Your task to perform on an android device: Open calendar and show me the first week of next month Image 0: 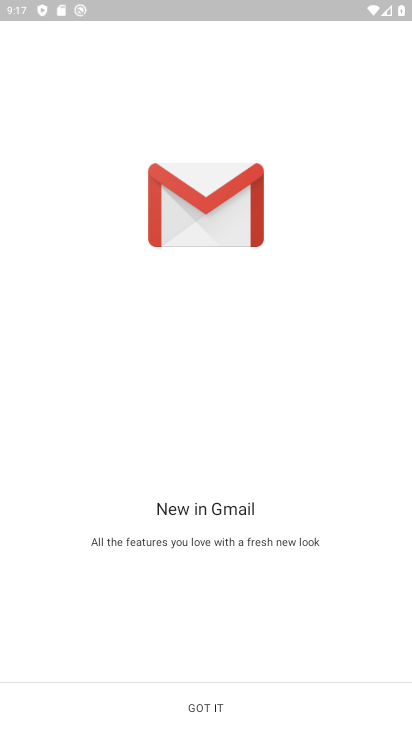
Step 0: press home button
Your task to perform on an android device: Open calendar and show me the first week of next month Image 1: 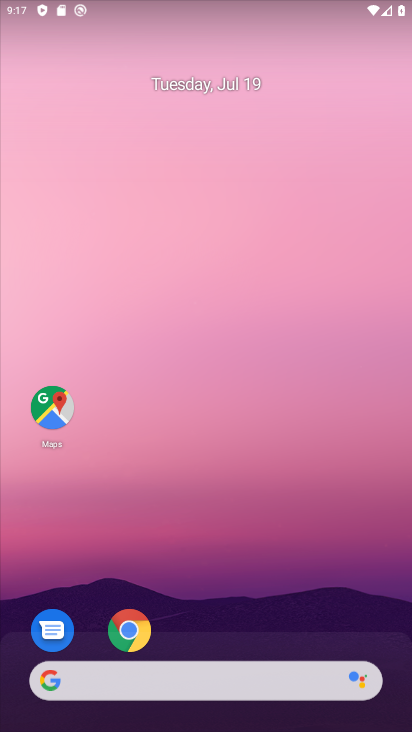
Step 1: drag from (207, 683) to (205, 166)
Your task to perform on an android device: Open calendar and show me the first week of next month Image 2: 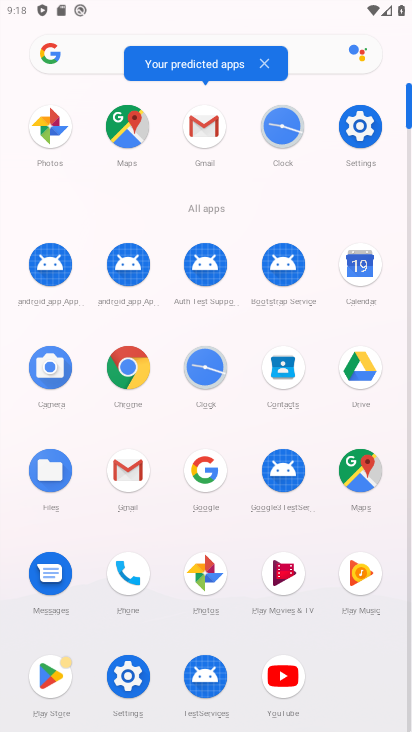
Step 2: click (359, 266)
Your task to perform on an android device: Open calendar and show me the first week of next month Image 3: 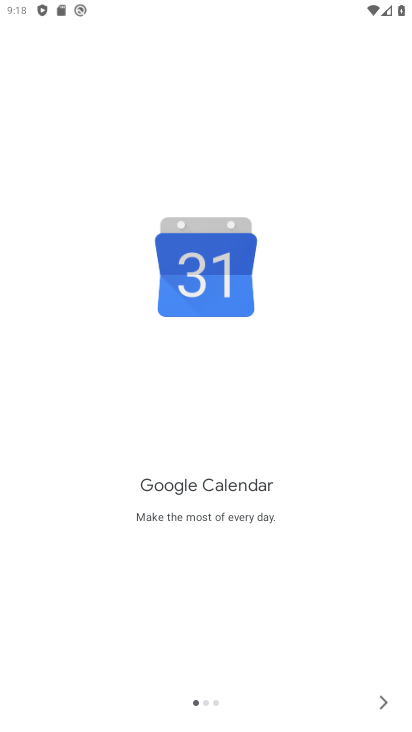
Step 3: click (390, 703)
Your task to perform on an android device: Open calendar and show me the first week of next month Image 4: 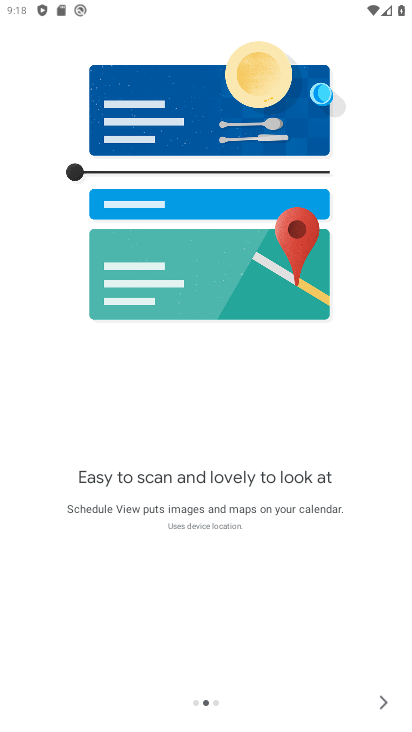
Step 4: click (390, 703)
Your task to perform on an android device: Open calendar and show me the first week of next month Image 5: 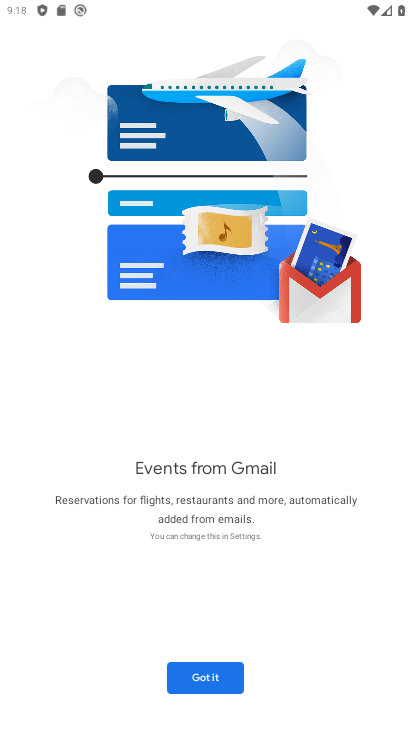
Step 5: click (196, 678)
Your task to perform on an android device: Open calendar and show me the first week of next month Image 6: 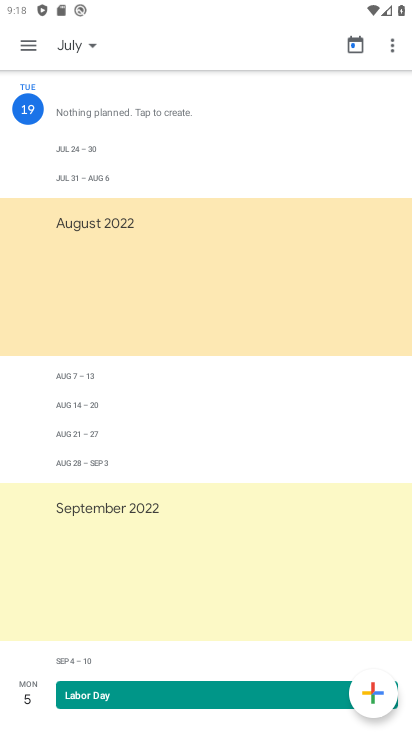
Step 6: click (25, 50)
Your task to perform on an android device: Open calendar and show me the first week of next month Image 7: 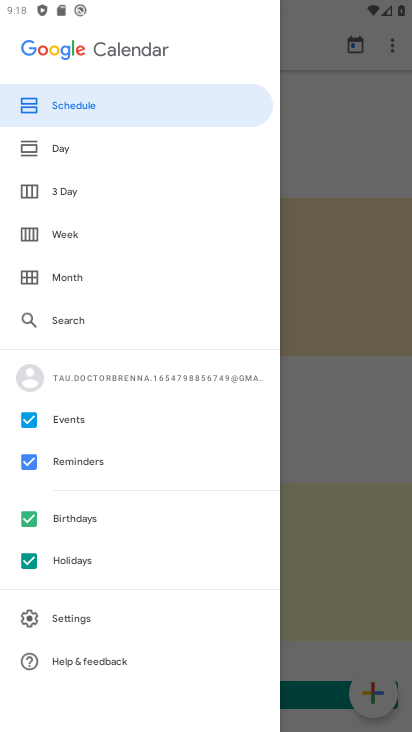
Step 7: click (67, 273)
Your task to perform on an android device: Open calendar and show me the first week of next month Image 8: 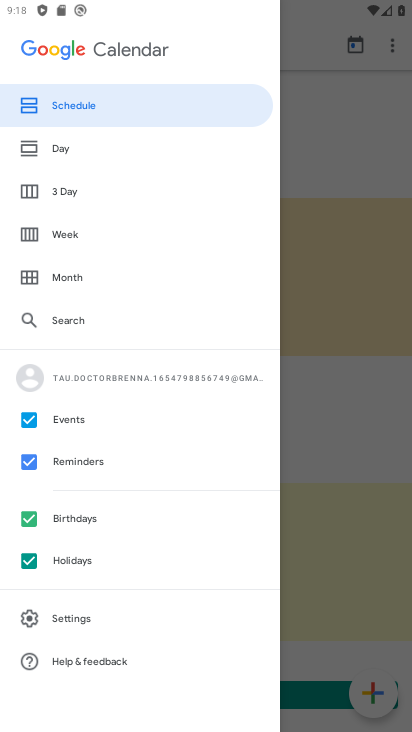
Step 8: click (71, 285)
Your task to perform on an android device: Open calendar and show me the first week of next month Image 9: 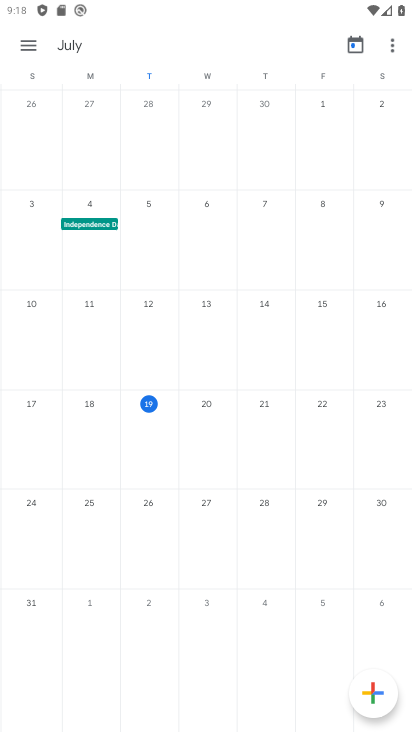
Step 9: task complete